Your task to perform on an android device: Open settings on Google Maps Image 0: 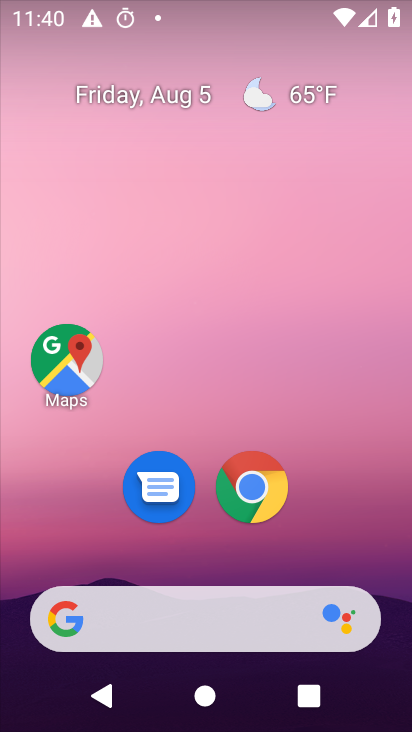
Step 0: drag from (210, 566) to (208, 32)
Your task to perform on an android device: Open settings on Google Maps Image 1: 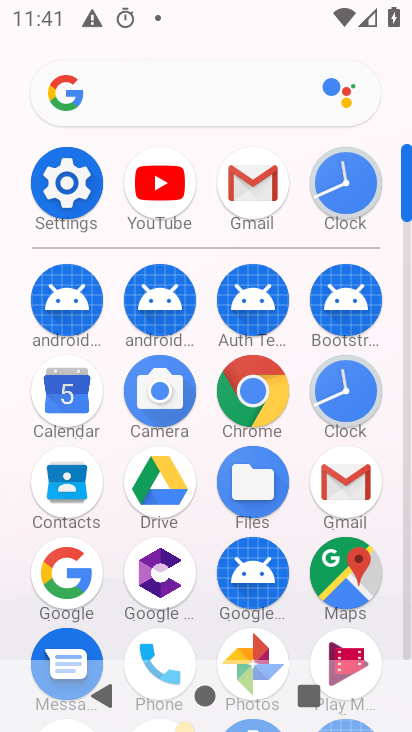
Step 1: click (335, 560)
Your task to perform on an android device: Open settings on Google Maps Image 2: 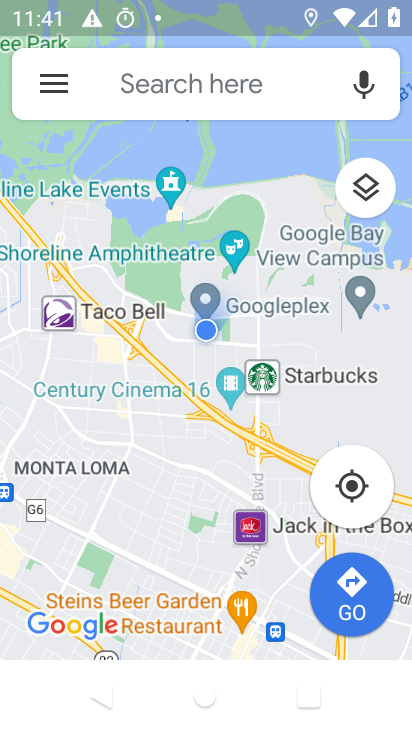
Step 2: click (65, 76)
Your task to perform on an android device: Open settings on Google Maps Image 3: 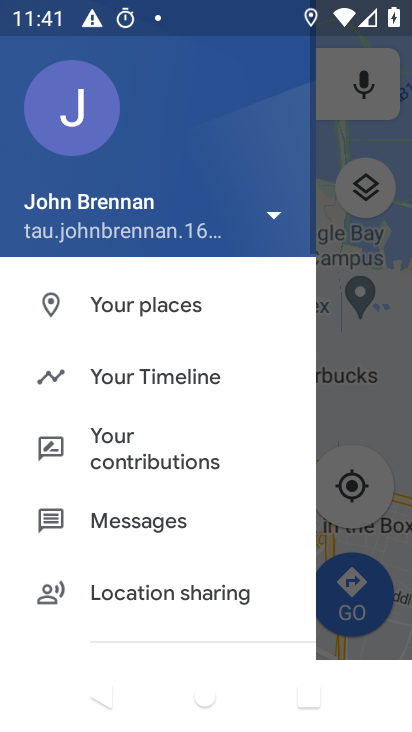
Step 3: drag from (152, 598) to (240, 66)
Your task to perform on an android device: Open settings on Google Maps Image 4: 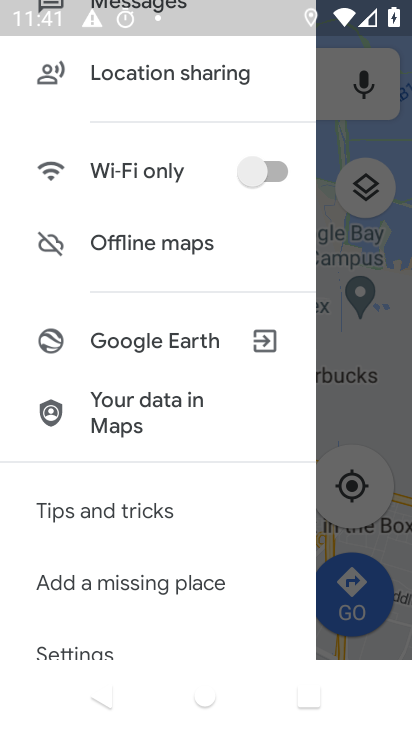
Step 4: click (94, 651)
Your task to perform on an android device: Open settings on Google Maps Image 5: 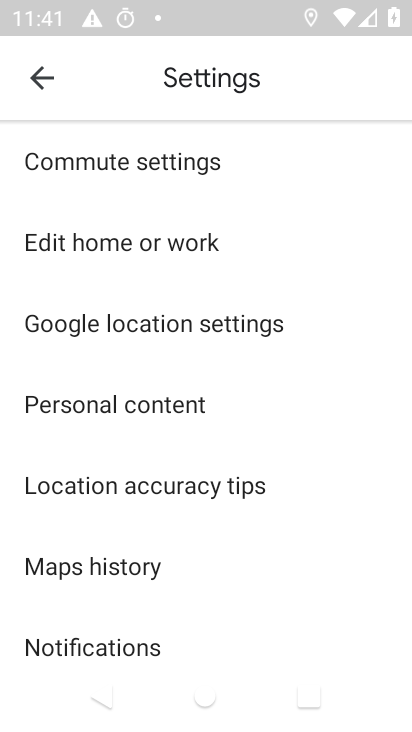
Step 5: task complete